Your task to perform on an android device: toggle notifications settings in the gmail app Image 0: 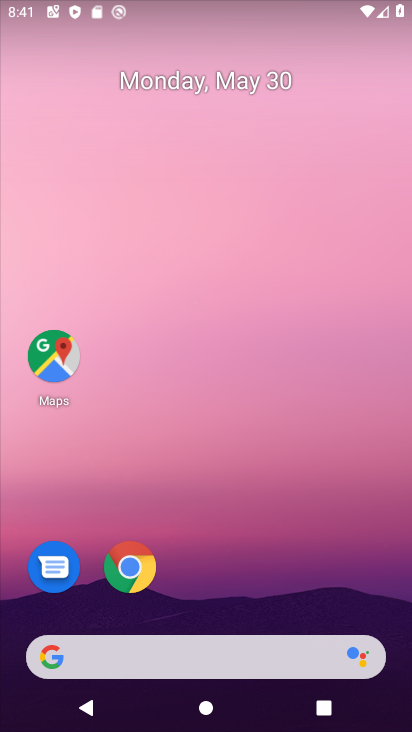
Step 0: drag from (176, 582) to (278, 31)
Your task to perform on an android device: toggle notifications settings in the gmail app Image 1: 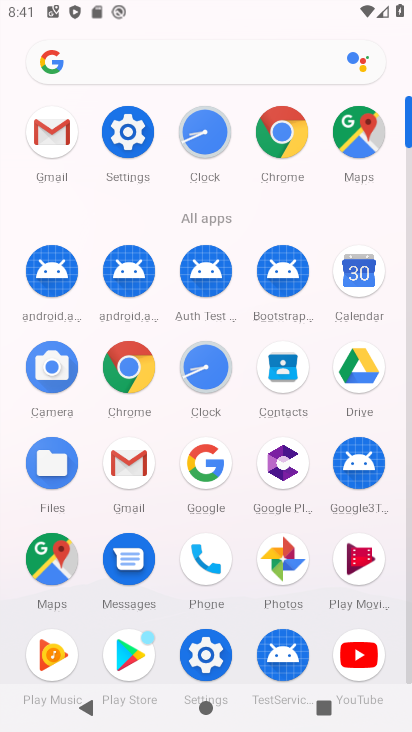
Step 1: click (48, 121)
Your task to perform on an android device: toggle notifications settings in the gmail app Image 2: 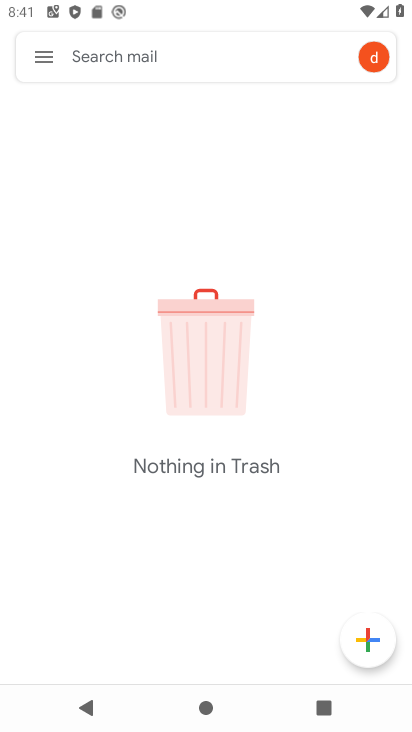
Step 2: click (37, 55)
Your task to perform on an android device: toggle notifications settings in the gmail app Image 3: 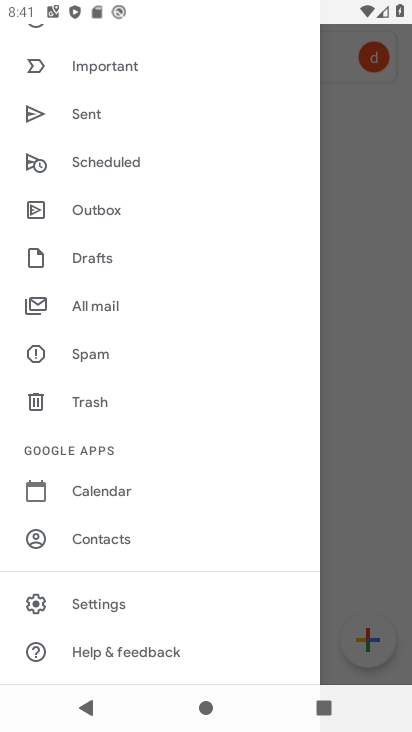
Step 3: click (60, 605)
Your task to perform on an android device: toggle notifications settings in the gmail app Image 4: 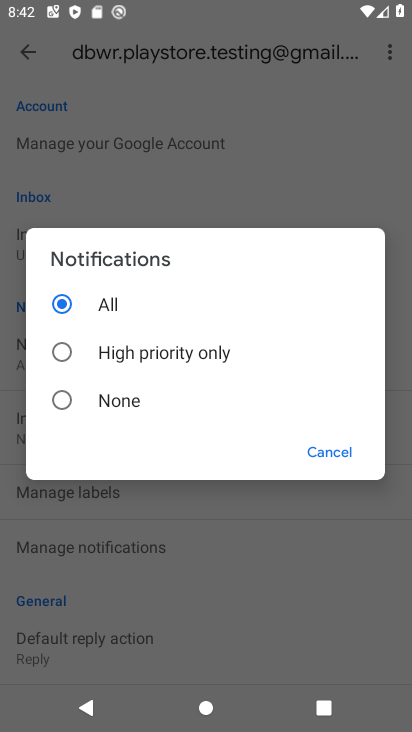
Step 4: click (114, 352)
Your task to perform on an android device: toggle notifications settings in the gmail app Image 5: 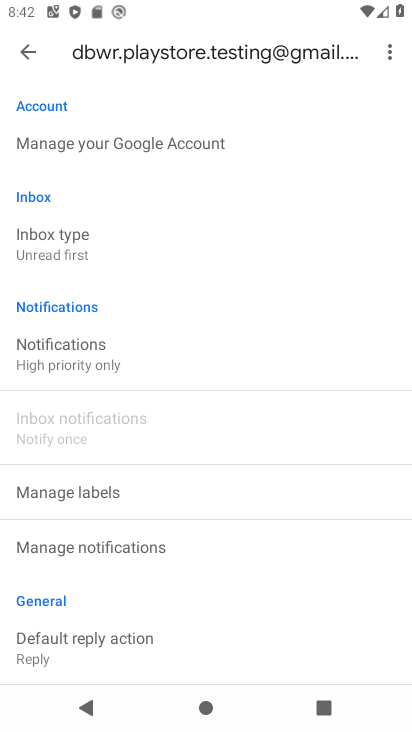
Step 5: task complete